Your task to perform on an android device: see sites visited before in the chrome app Image 0: 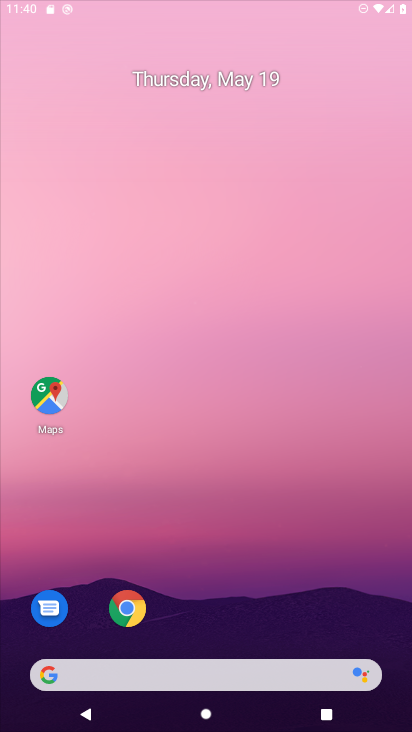
Step 0: press home button
Your task to perform on an android device: see sites visited before in the chrome app Image 1: 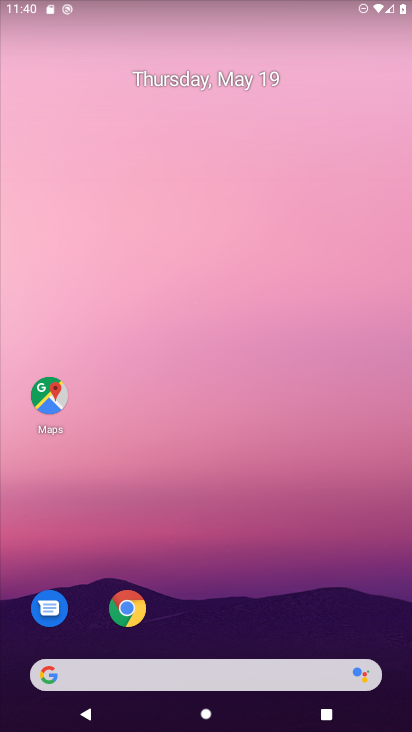
Step 1: click (145, 607)
Your task to perform on an android device: see sites visited before in the chrome app Image 2: 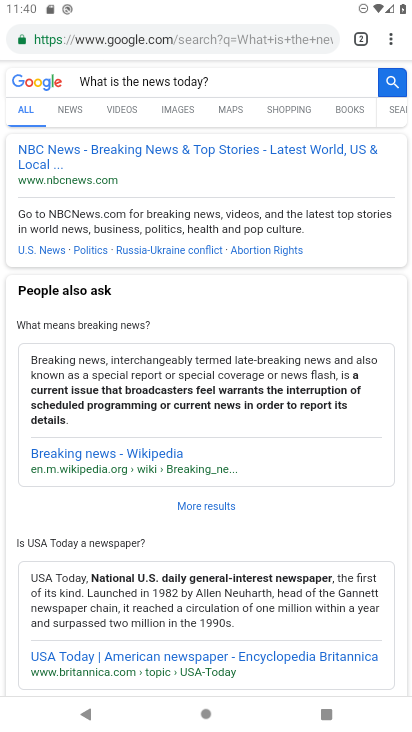
Step 2: task complete